Your task to perform on an android device: Open Youtube and go to "Your channel" Image 0: 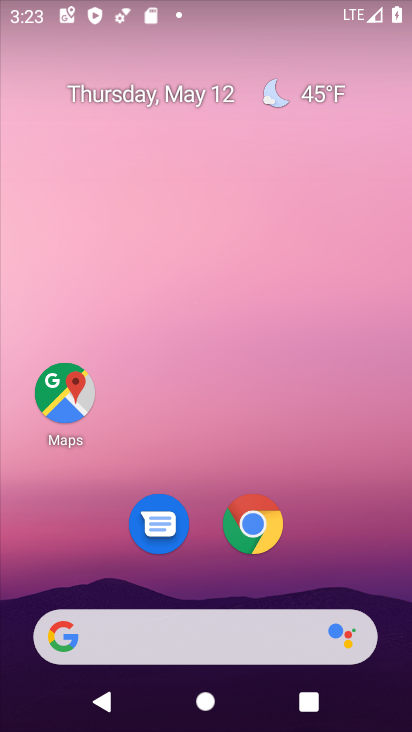
Step 0: drag from (296, 480) to (325, 15)
Your task to perform on an android device: Open Youtube and go to "Your channel" Image 1: 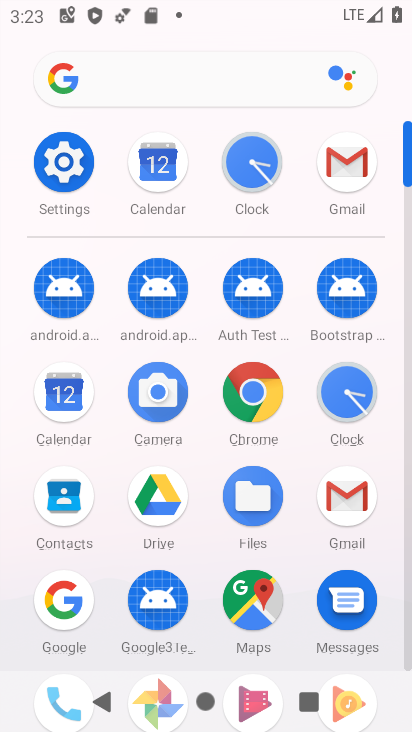
Step 1: drag from (293, 447) to (310, 100)
Your task to perform on an android device: Open Youtube and go to "Your channel" Image 2: 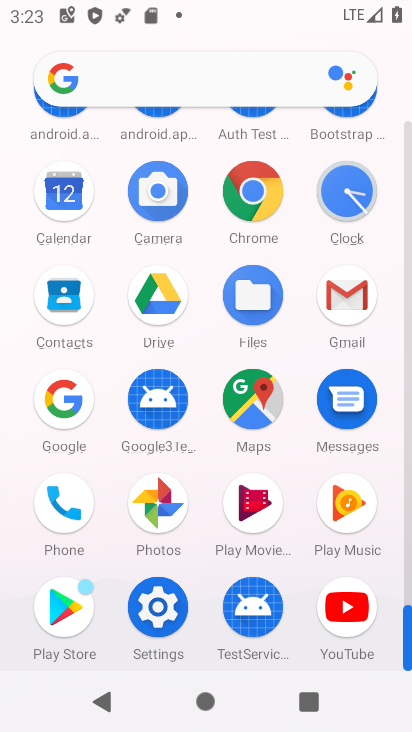
Step 2: click (342, 592)
Your task to perform on an android device: Open Youtube and go to "Your channel" Image 3: 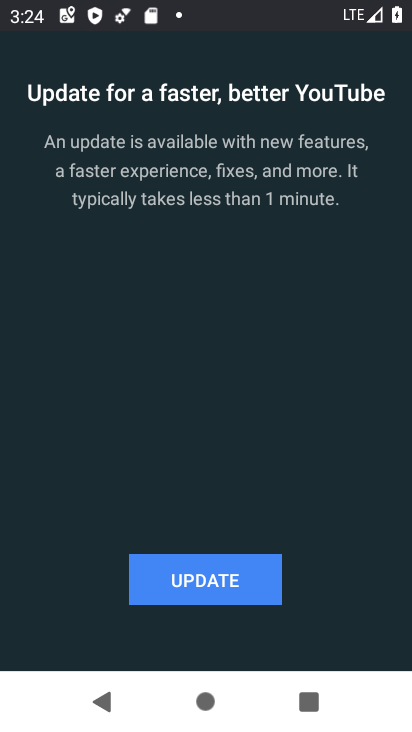
Step 3: click (248, 590)
Your task to perform on an android device: Open Youtube and go to "Your channel" Image 4: 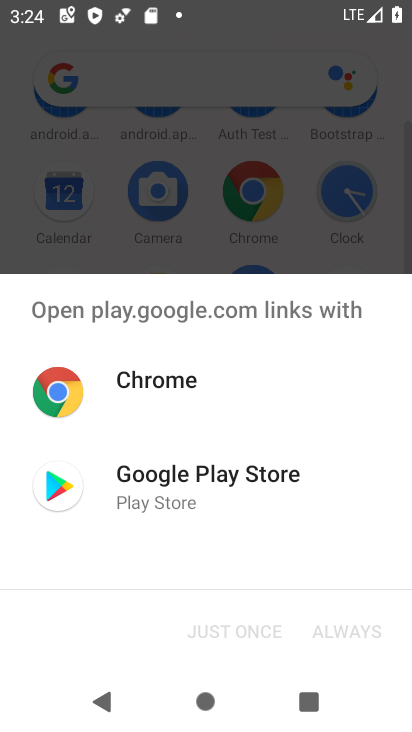
Step 4: click (154, 471)
Your task to perform on an android device: Open Youtube and go to "Your channel" Image 5: 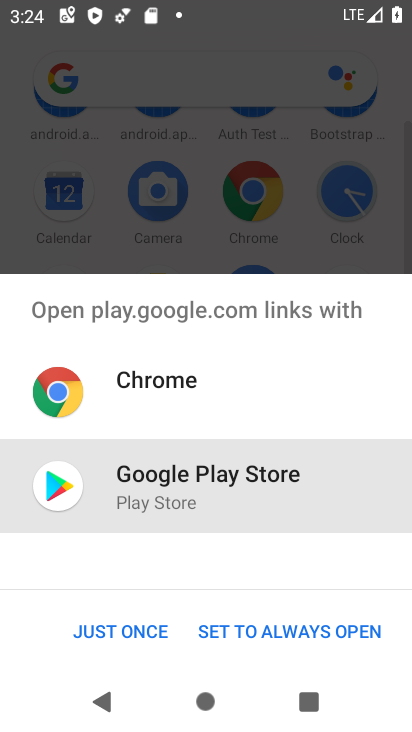
Step 5: click (116, 631)
Your task to perform on an android device: Open Youtube and go to "Your channel" Image 6: 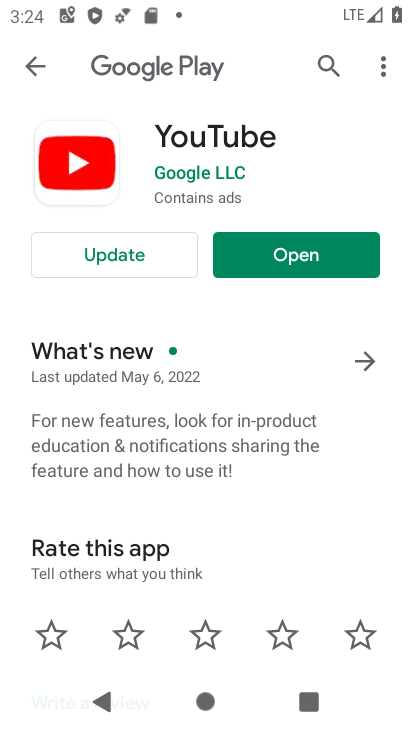
Step 6: click (184, 252)
Your task to perform on an android device: Open Youtube and go to "Your channel" Image 7: 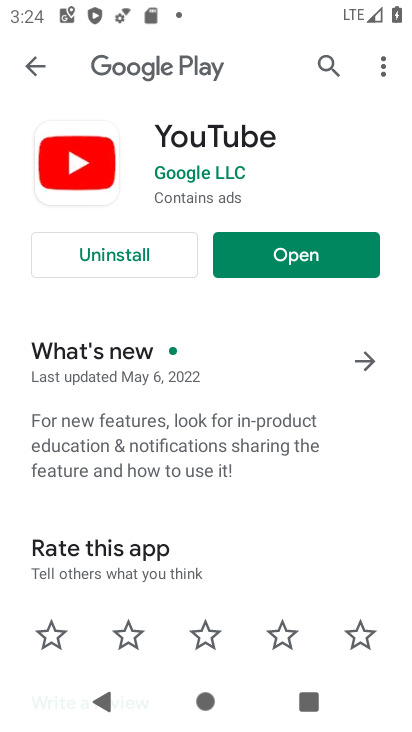
Step 7: click (326, 257)
Your task to perform on an android device: Open Youtube and go to "Your channel" Image 8: 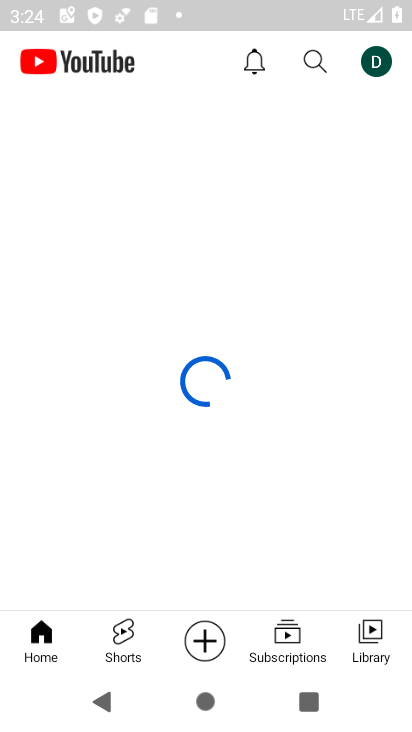
Step 8: click (379, 66)
Your task to perform on an android device: Open Youtube and go to "Your channel" Image 9: 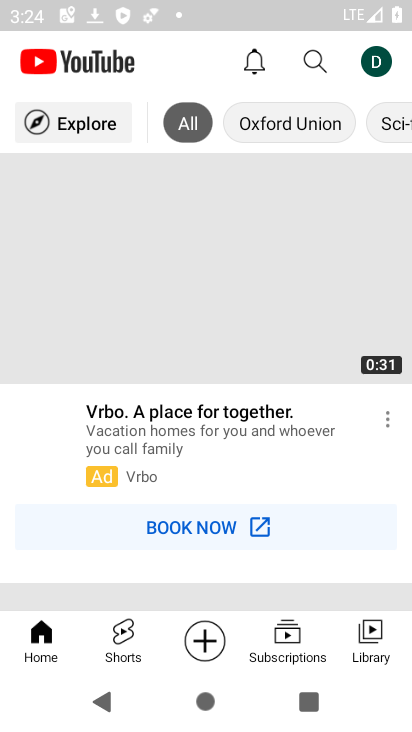
Step 9: click (379, 66)
Your task to perform on an android device: Open Youtube and go to "Your channel" Image 10: 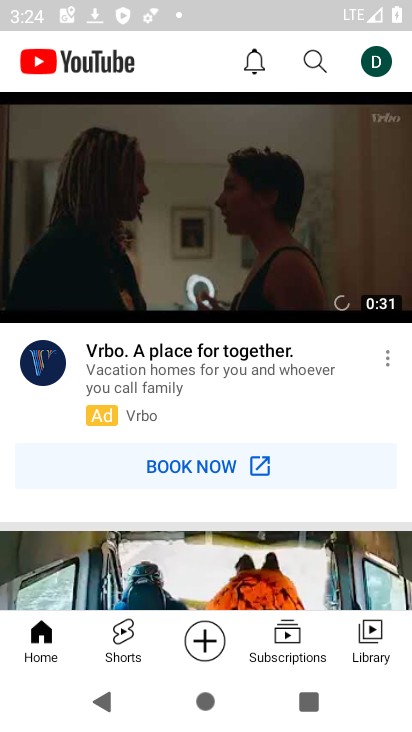
Step 10: click (370, 62)
Your task to perform on an android device: Open Youtube and go to "Your channel" Image 11: 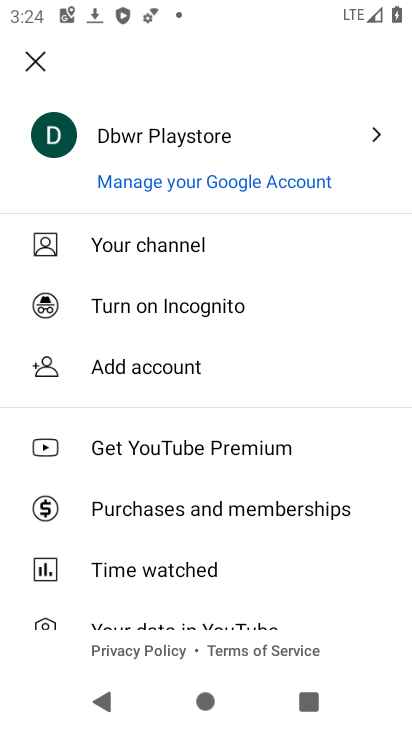
Step 11: click (165, 239)
Your task to perform on an android device: Open Youtube and go to "Your channel" Image 12: 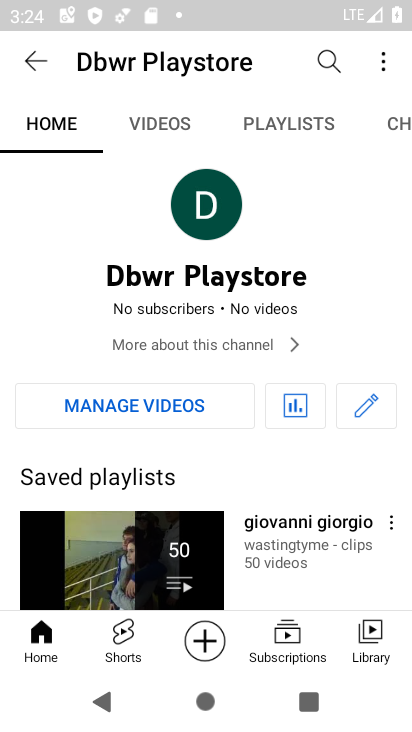
Step 12: task complete